Your task to perform on an android device: move an email to a new category in the gmail app Image 0: 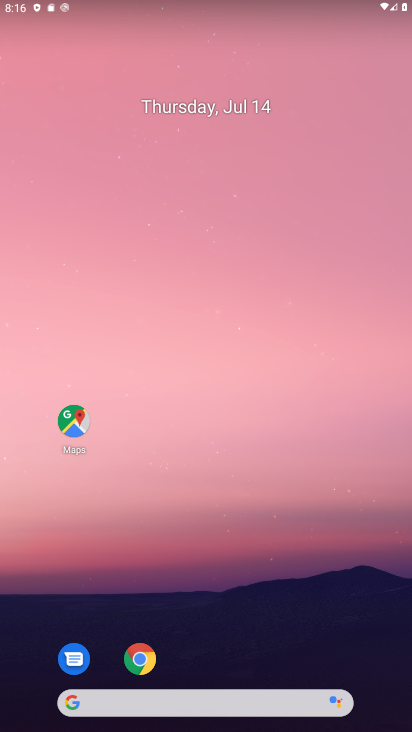
Step 0: drag from (209, 664) to (183, 275)
Your task to perform on an android device: move an email to a new category in the gmail app Image 1: 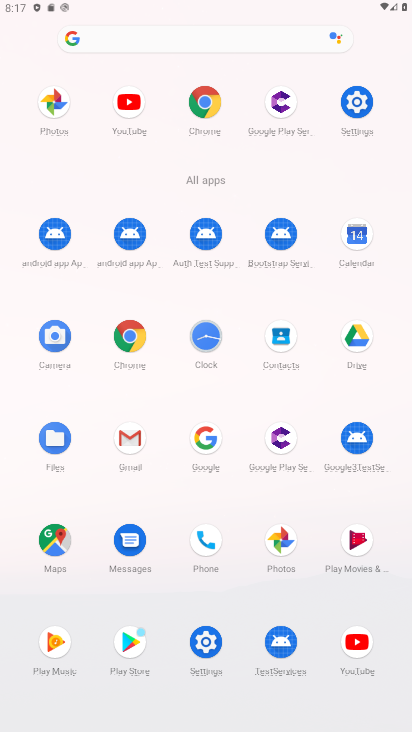
Step 1: click (126, 428)
Your task to perform on an android device: move an email to a new category in the gmail app Image 2: 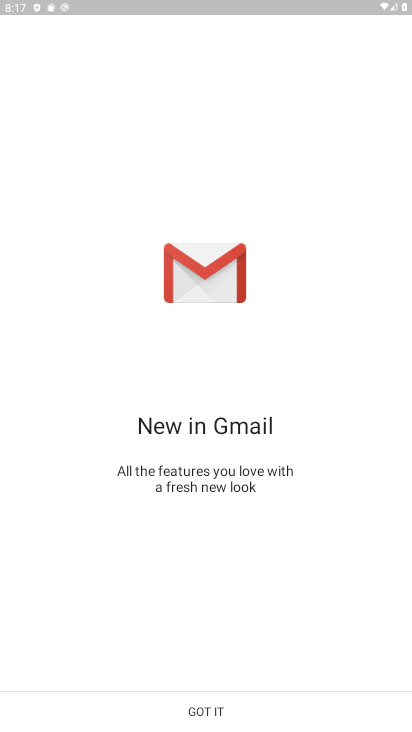
Step 2: click (221, 701)
Your task to perform on an android device: move an email to a new category in the gmail app Image 3: 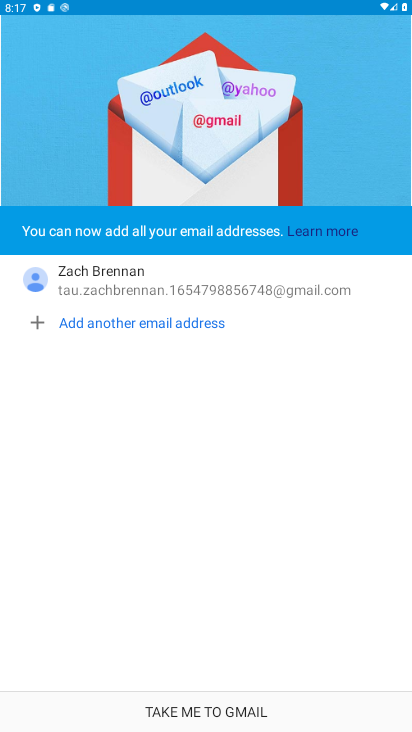
Step 3: click (221, 701)
Your task to perform on an android device: move an email to a new category in the gmail app Image 4: 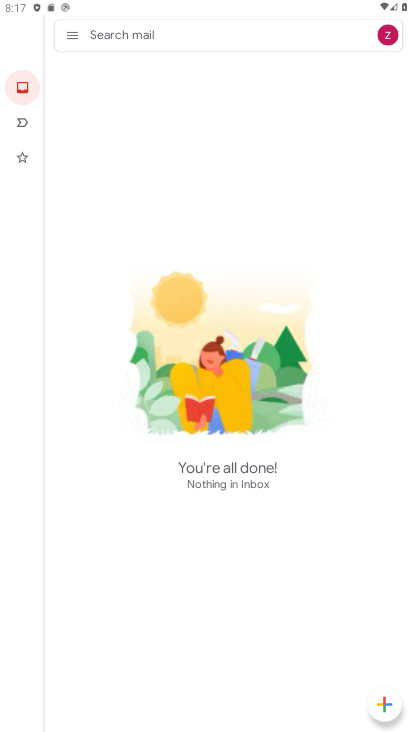
Step 4: task complete